Your task to perform on an android device: Search for Italian restaurants on Maps Image 0: 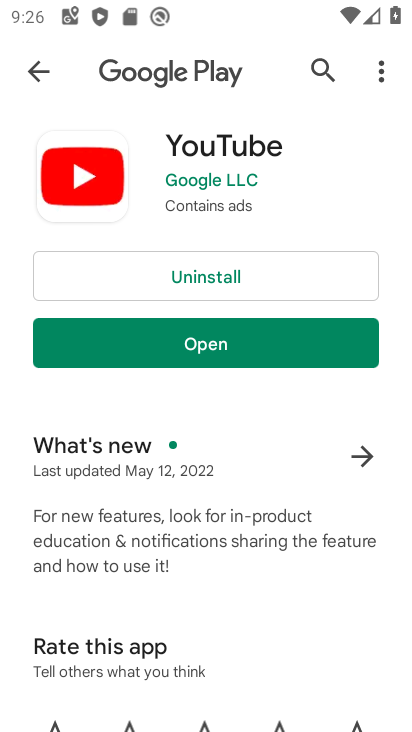
Step 0: press home button
Your task to perform on an android device: Search for Italian restaurants on Maps Image 1: 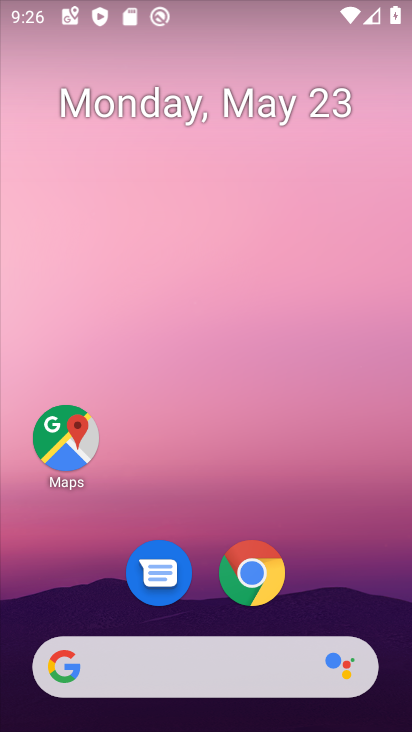
Step 1: drag from (385, 597) to (377, 290)
Your task to perform on an android device: Search for Italian restaurants on Maps Image 2: 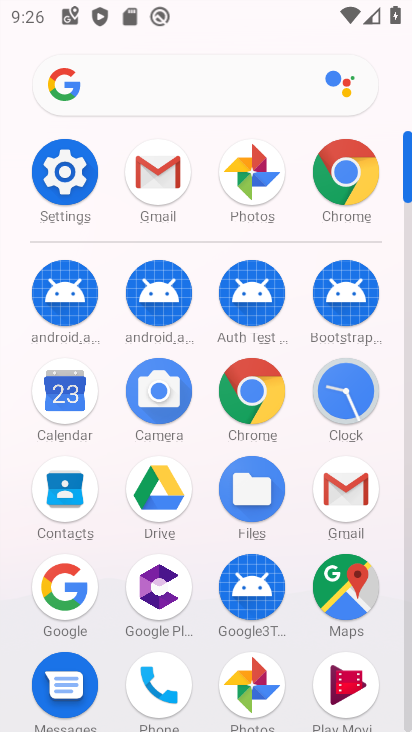
Step 2: click (328, 610)
Your task to perform on an android device: Search for Italian restaurants on Maps Image 3: 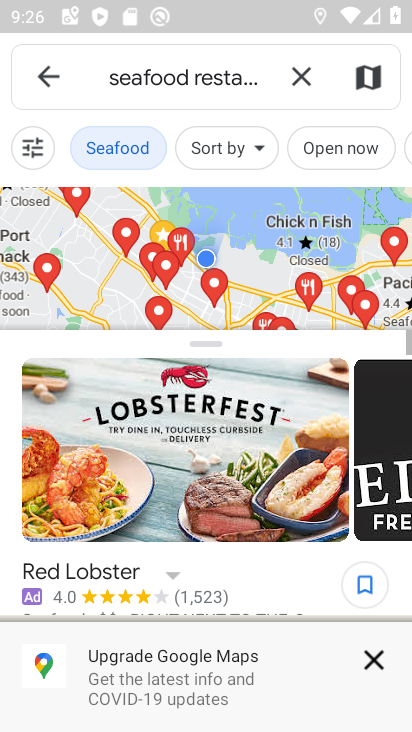
Step 3: click (294, 68)
Your task to perform on an android device: Search for Italian restaurants on Maps Image 4: 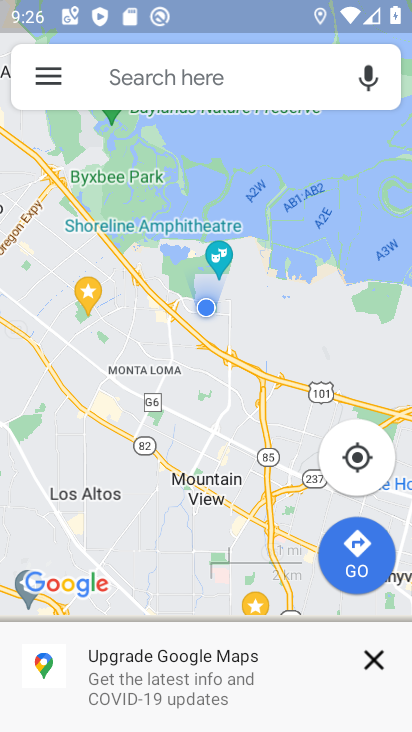
Step 4: click (275, 70)
Your task to perform on an android device: Search for Italian restaurants on Maps Image 5: 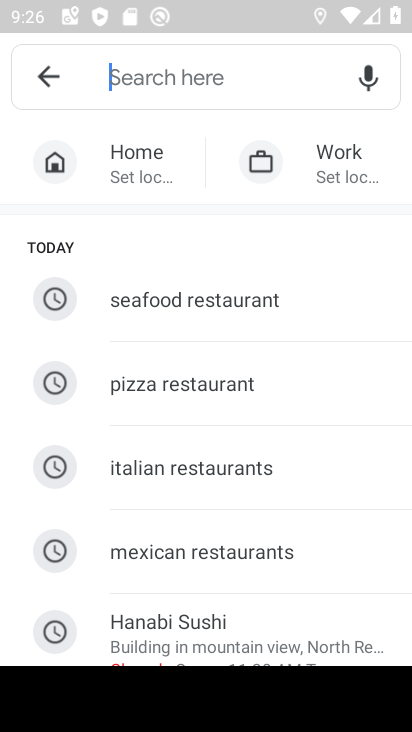
Step 5: type "italian restaurants"
Your task to perform on an android device: Search for Italian restaurants on Maps Image 6: 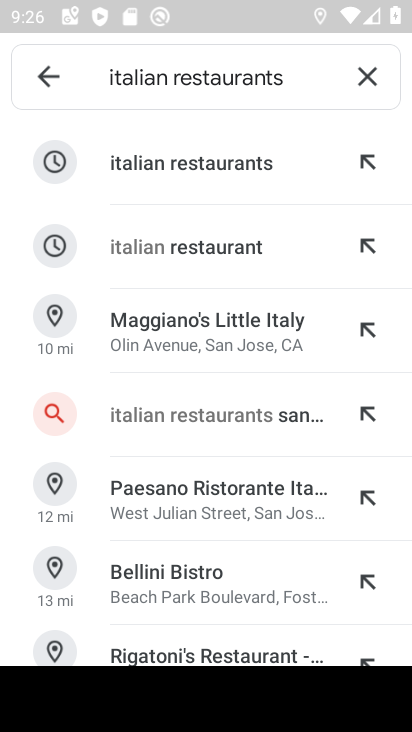
Step 6: click (280, 161)
Your task to perform on an android device: Search for Italian restaurants on Maps Image 7: 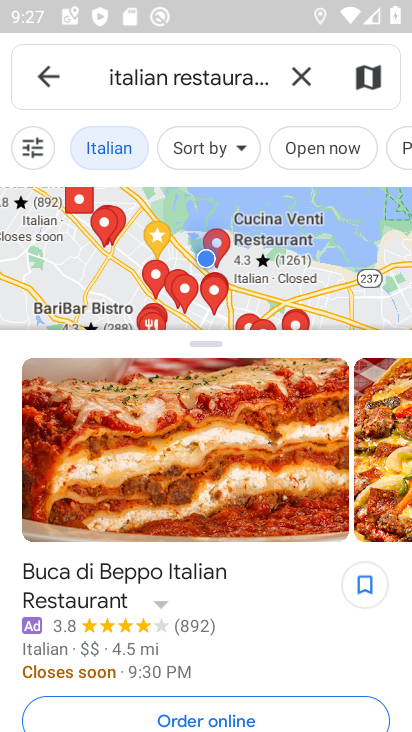
Step 7: task complete